Your task to perform on an android device: Go to network settings Image 0: 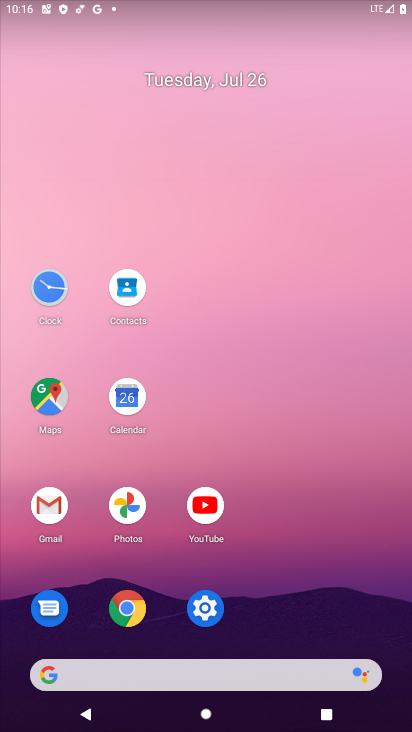
Step 0: click (206, 609)
Your task to perform on an android device: Go to network settings Image 1: 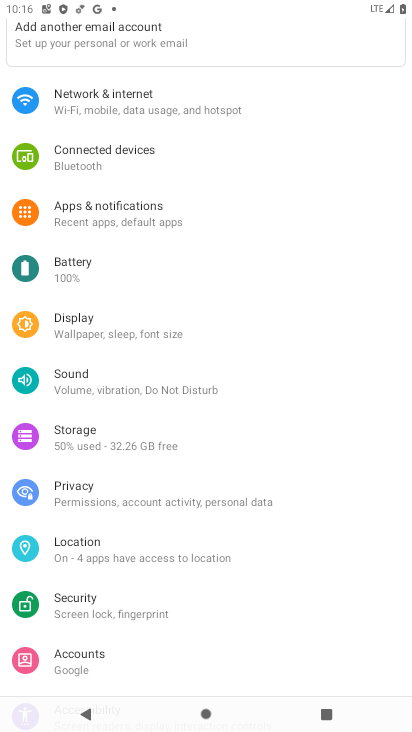
Step 1: click (74, 95)
Your task to perform on an android device: Go to network settings Image 2: 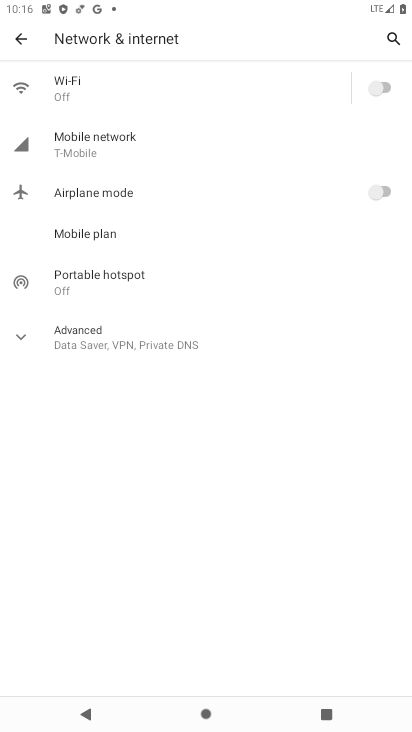
Step 2: click (72, 132)
Your task to perform on an android device: Go to network settings Image 3: 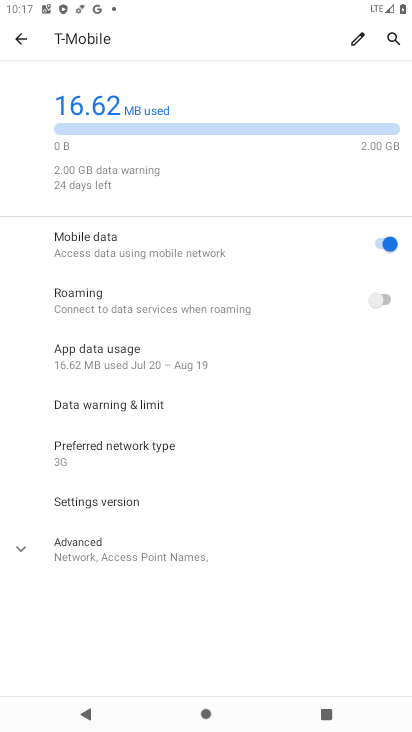
Step 3: task complete